Your task to perform on an android device: turn pop-ups on in chrome Image 0: 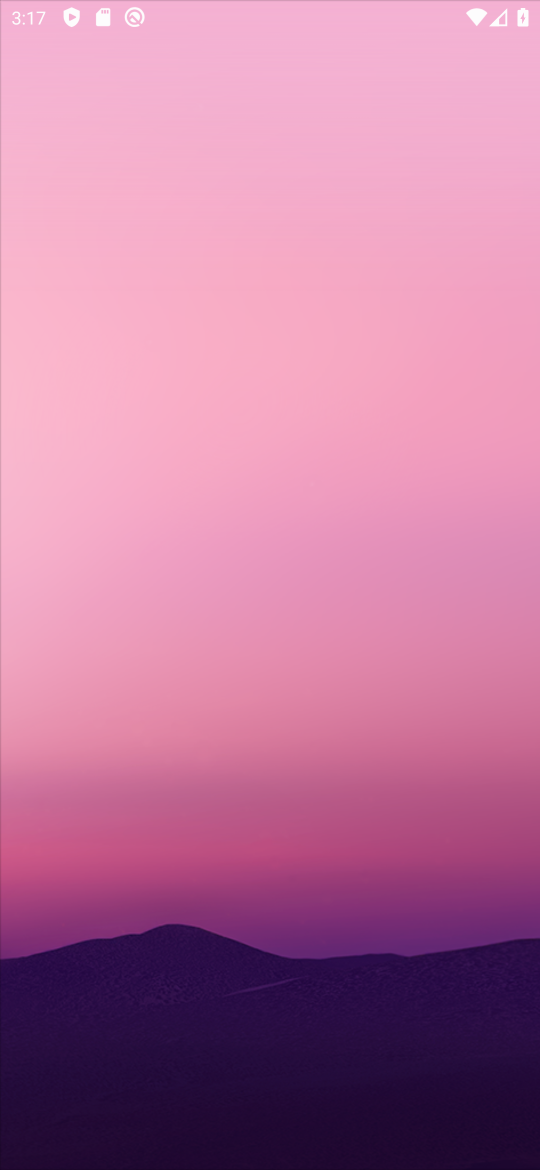
Step 0: click (379, 104)
Your task to perform on an android device: turn pop-ups on in chrome Image 1: 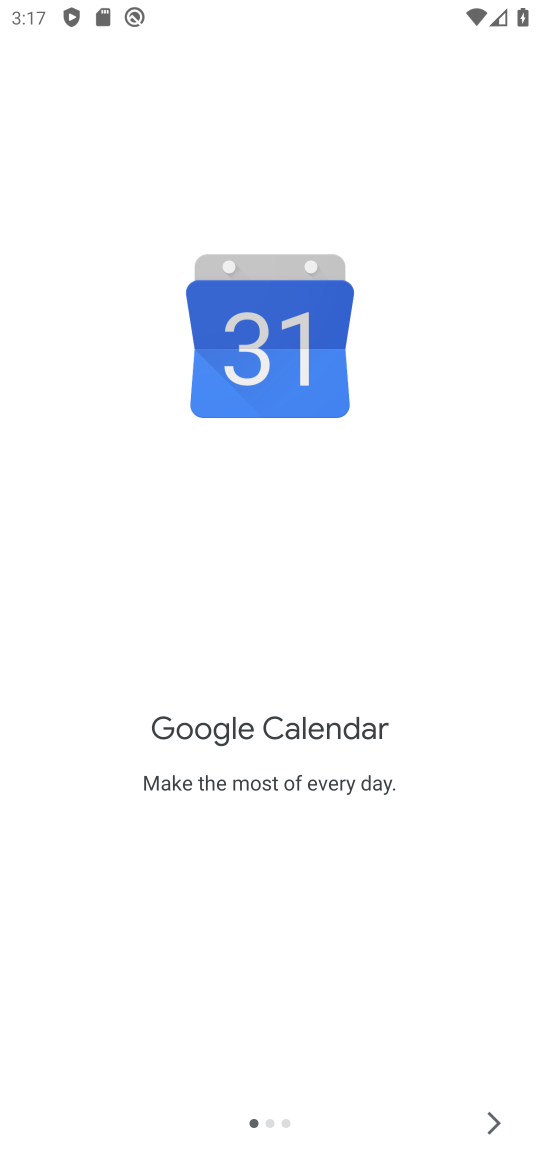
Step 1: press back button
Your task to perform on an android device: turn pop-ups on in chrome Image 2: 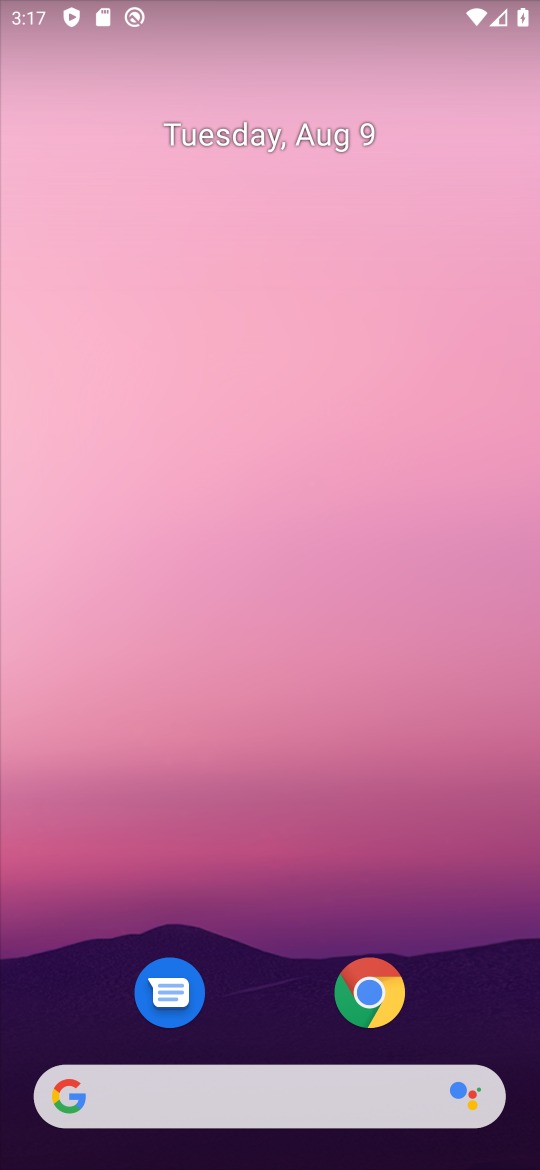
Step 2: click (365, 976)
Your task to perform on an android device: turn pop-ups on in chrome Image 3: 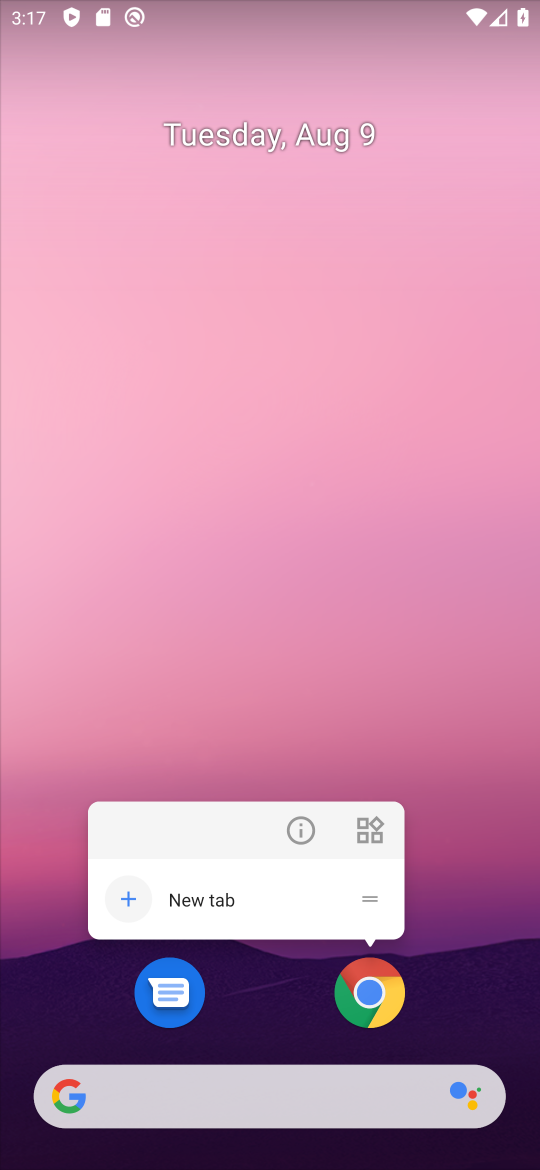
Step 3: click (376, 1000)
Your task to perform on an android device: turn pop-ups on in chrome Image 4: 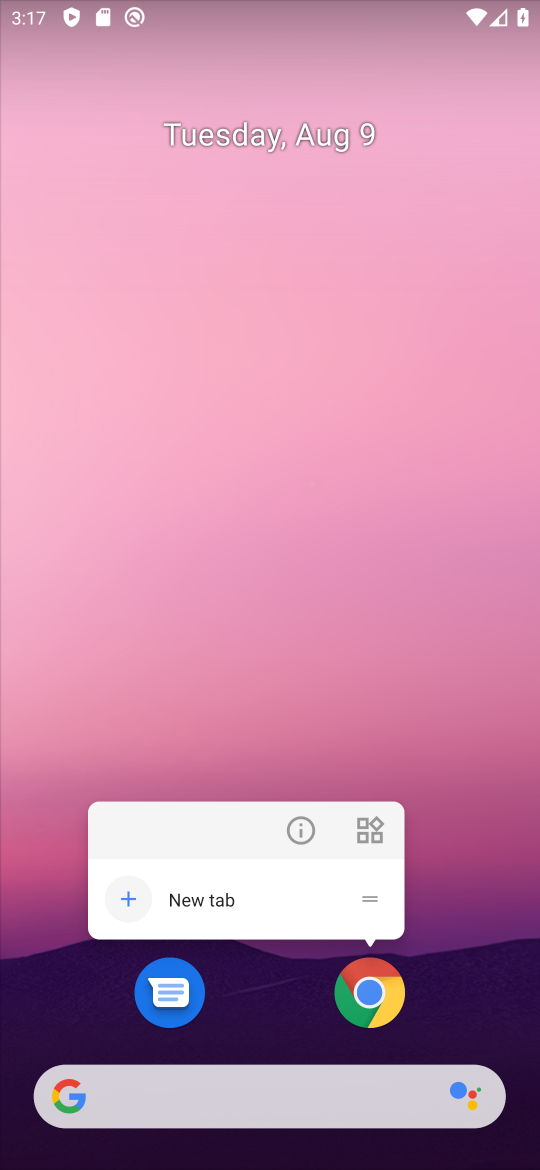
Step 4: click (377, 991)
Your task to perform on an android device: turn pop-ups on in chrome Image 5: 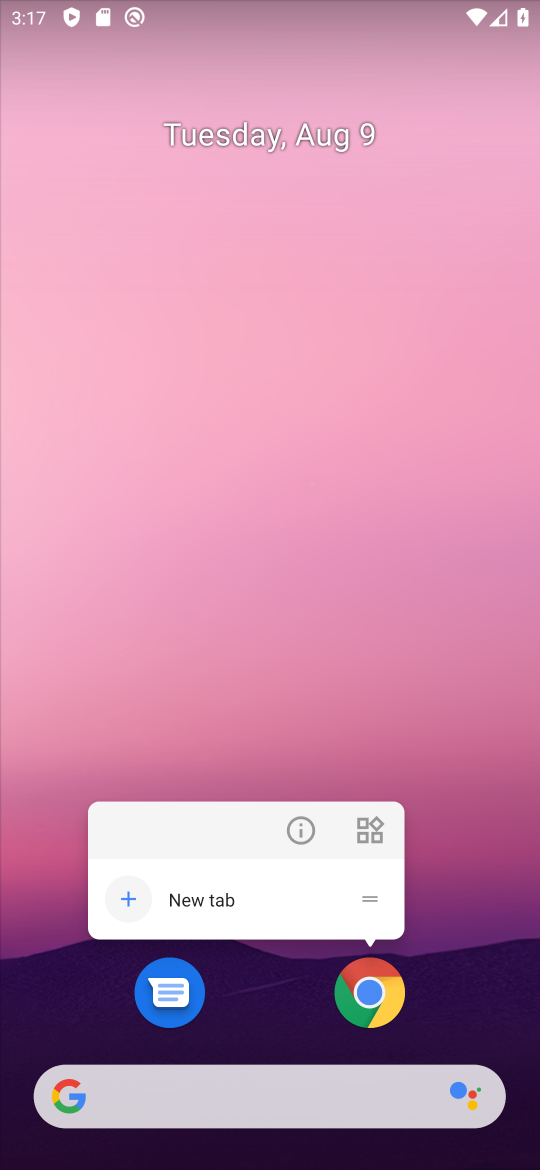
Step 5: click (352, 988)
Your task to perform on an android device: turn pop-ups on in chrome Image 6: 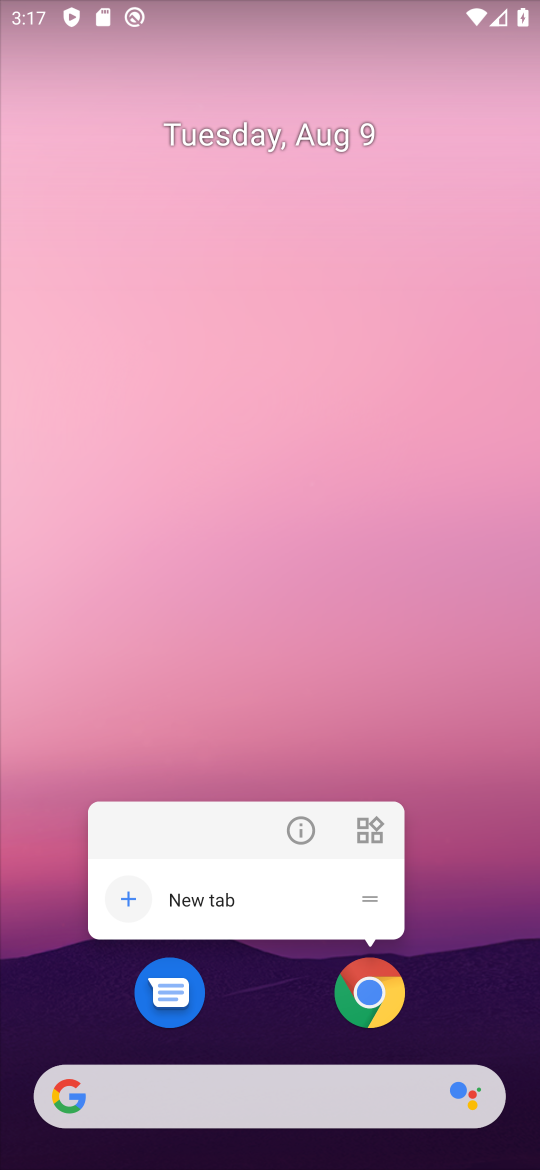
Step 6: click (365, 987)
Your task to perform on an android device: turn pop-ups on in chrome Image 7: 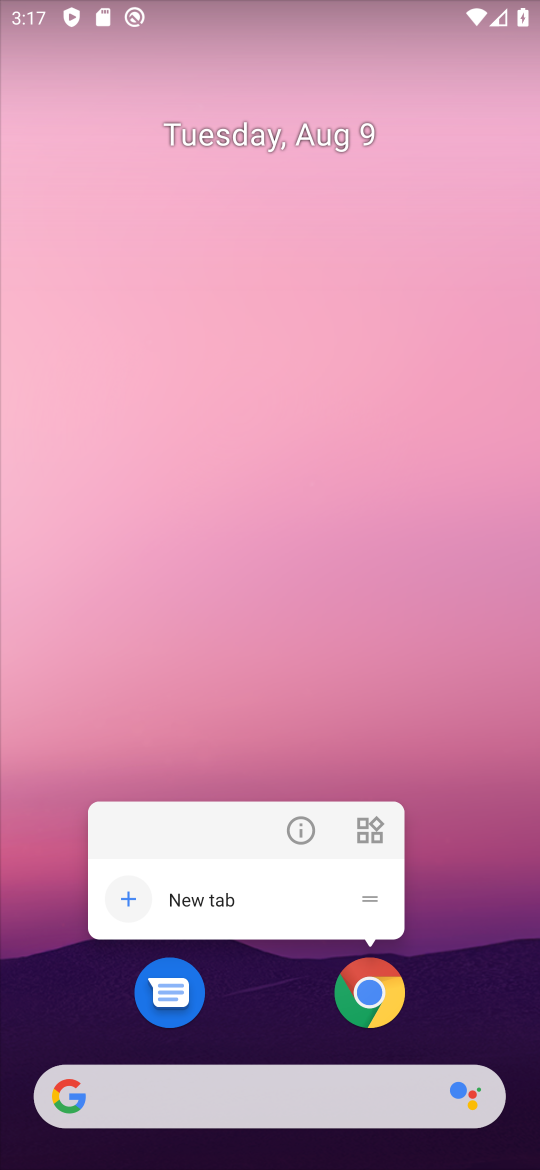
Step 7: click (375, 988)
Your task to perform on an android device: turn pop-ups on in chrome Image 8: 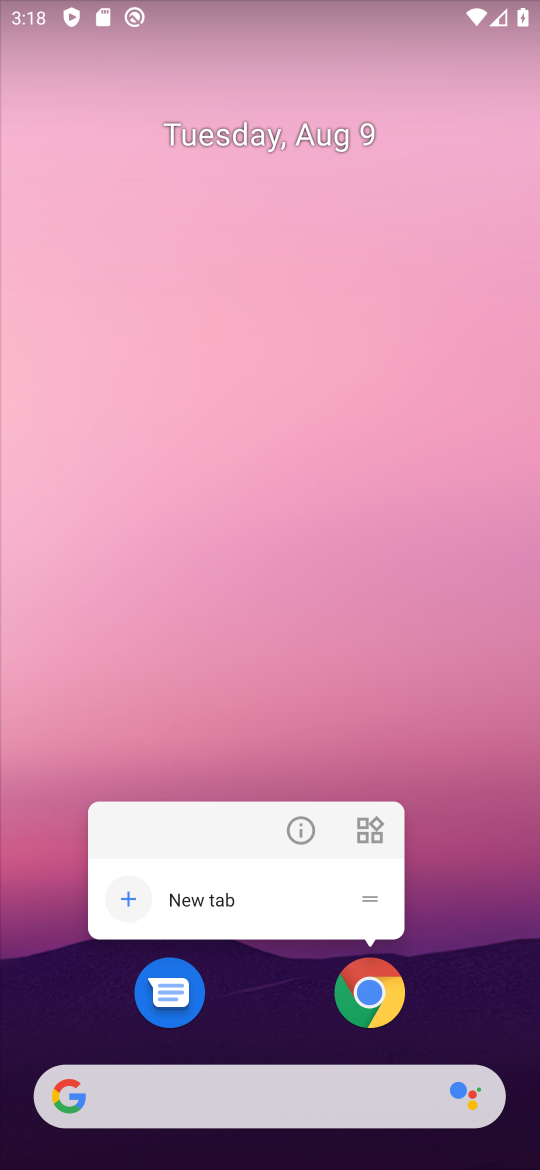
Step 8: click (376, 992)
Your task to perform on an android device: turn pop-ups on in chrome Image 9: 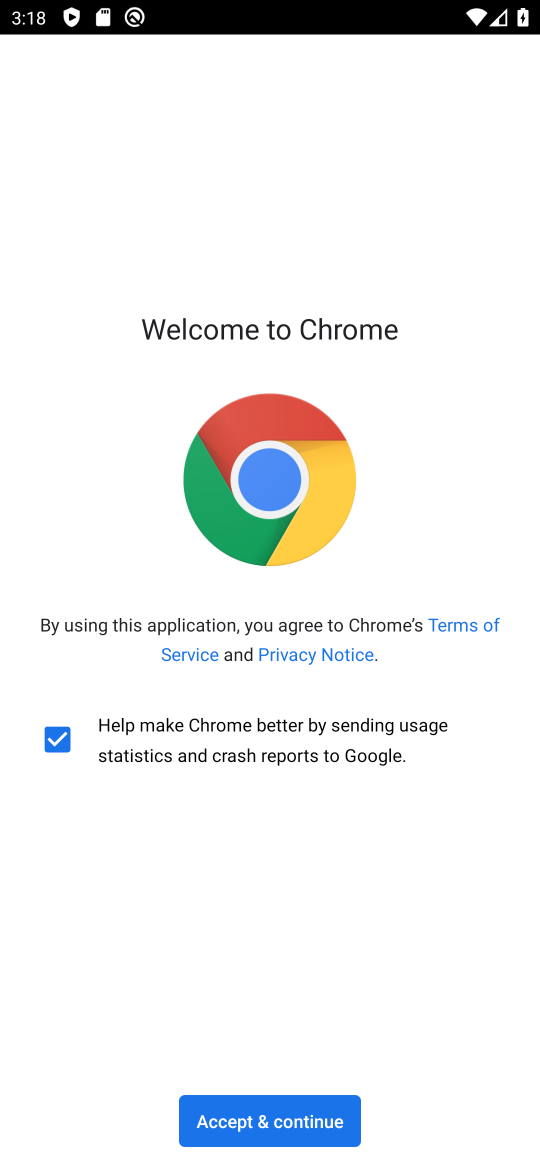
Step 9: click (225, 1143)
Your task to perform on an android device: turn pop-ups on in chrome Image 10: 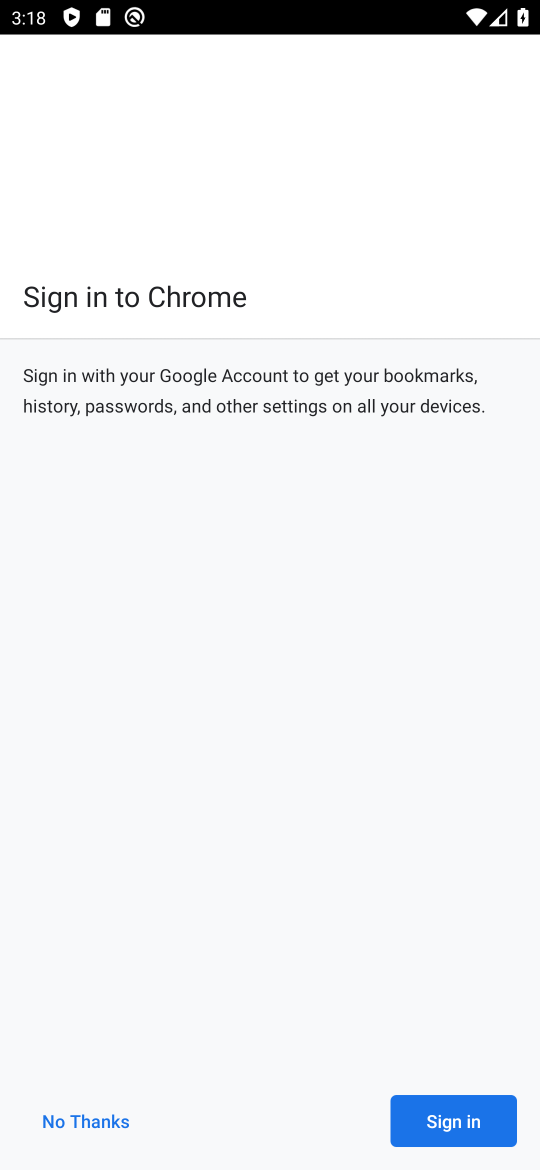
Step 10: click (428, 1111)
Your task to perform on an android device: turn pop-ups on in chrome Image 11: 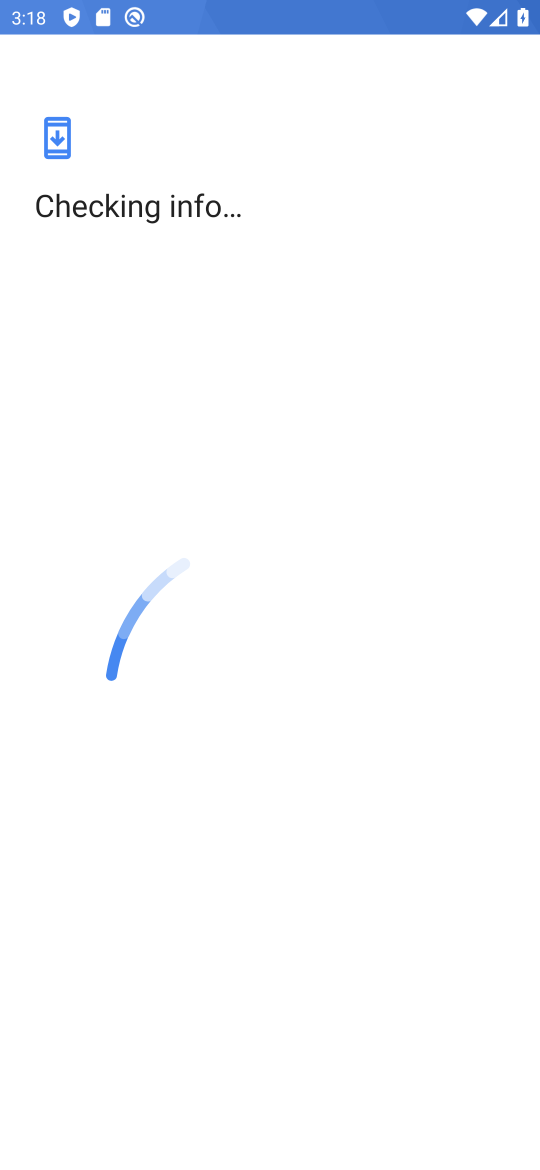
Step 11: press back button
Your task to perform on an android device: turn pop-ups on in chrome Image 12: 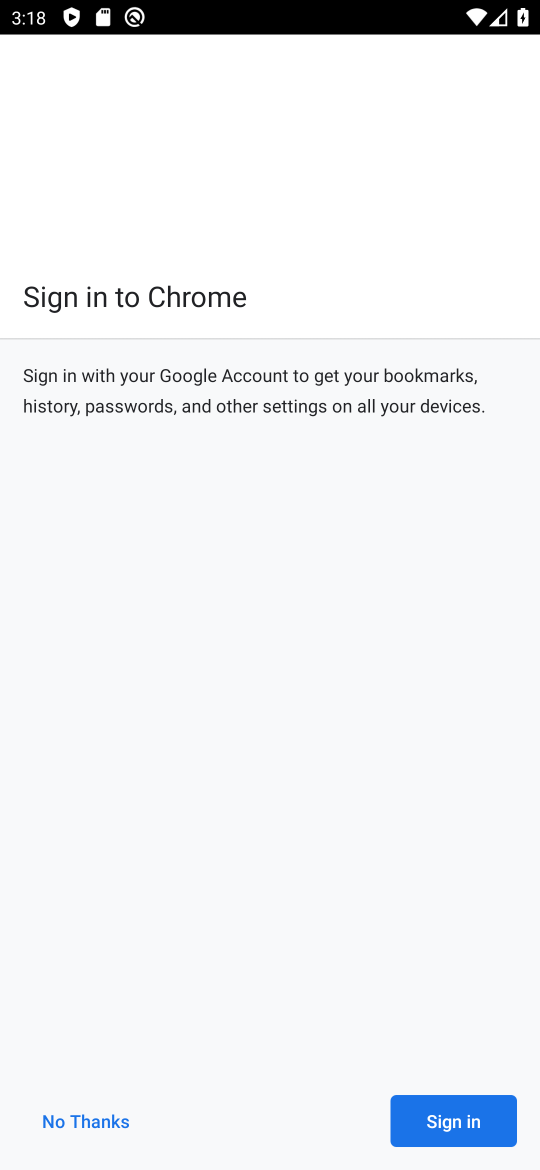
Step 12: press back button
Your task to perform on an android device: turn pop-ups on in chrome Image 13: 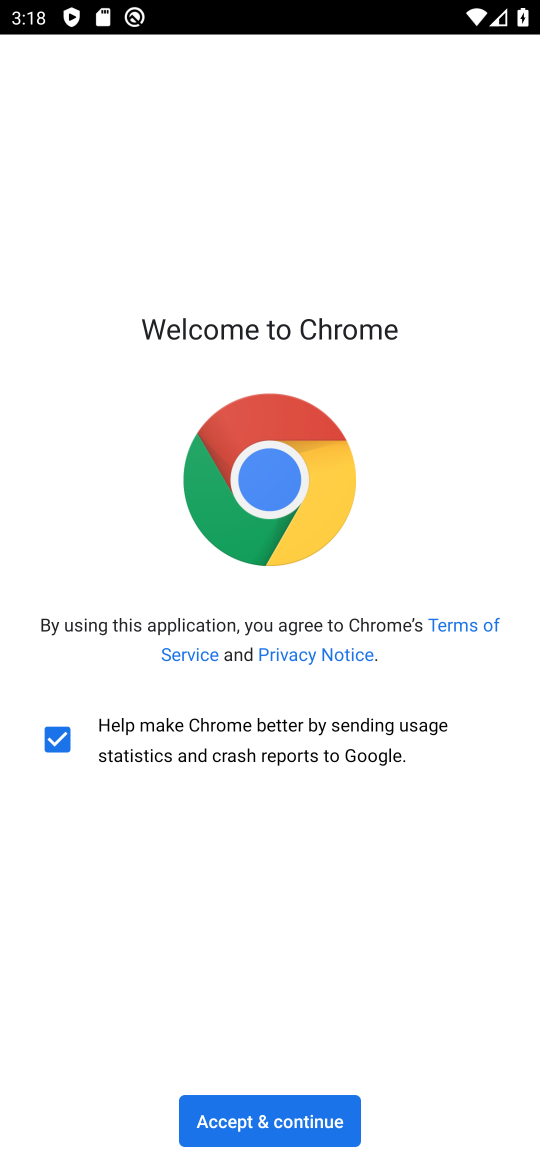
Step 13: click (251, 1116)
Your task to perform on an android device: turn pop-ups on in chrome Image 14: 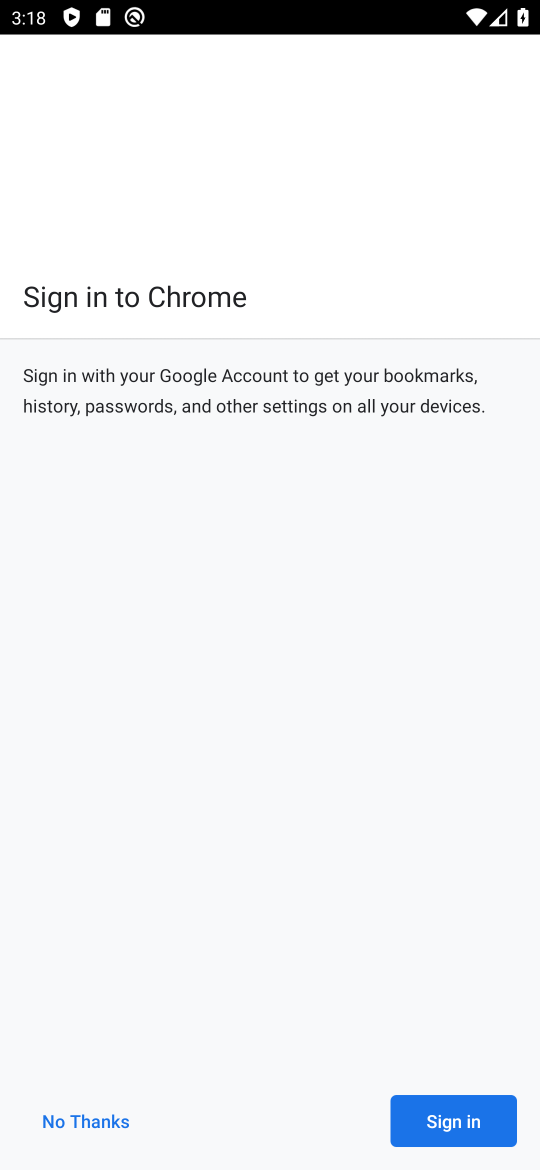
Step 14: click (84, 1137)
Your task to perform on an android device: turn pop-ups on in chrome Image 15: 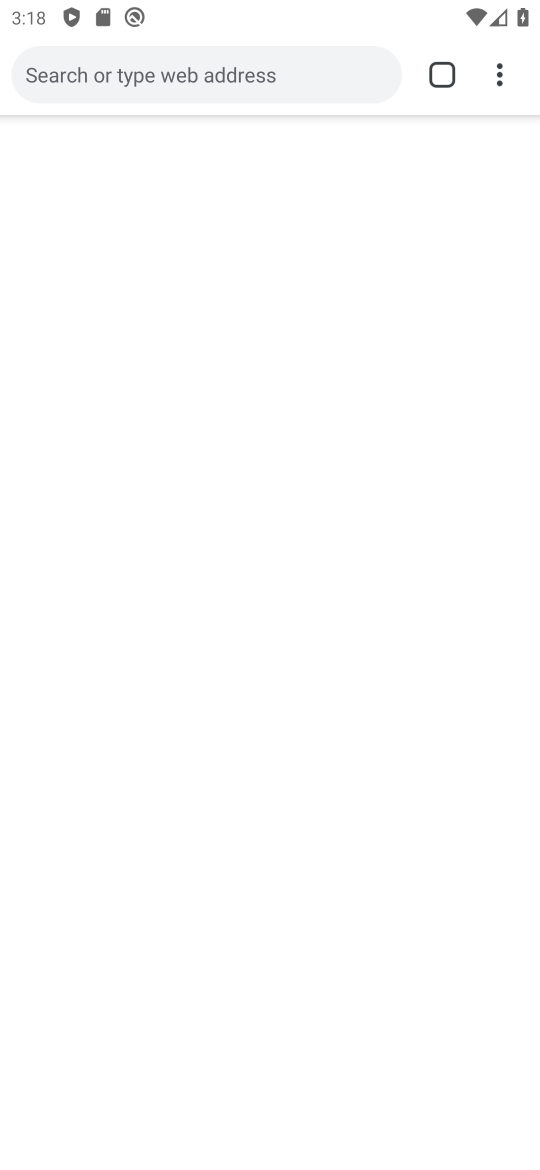
Step 15: drag from (497, 68) to (321, 455)
Your task to perform on an android device: turn pop-ups on in chrome Image 16: 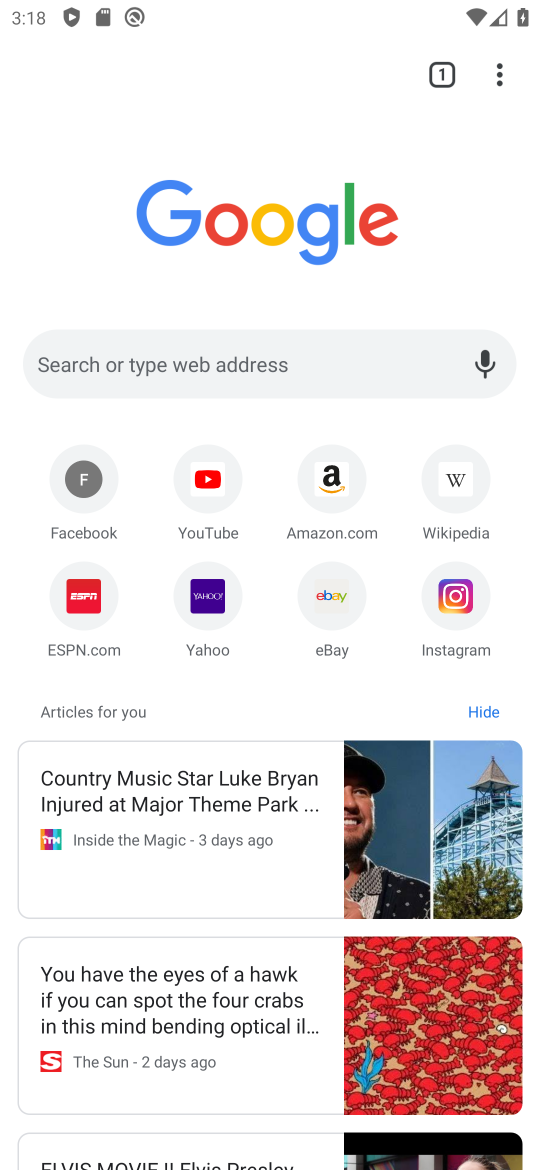
Step 16: drag from (497, 89) to (238, 627)
Your task to perform on an android device: turn pop-ups on in chrome Image 17: 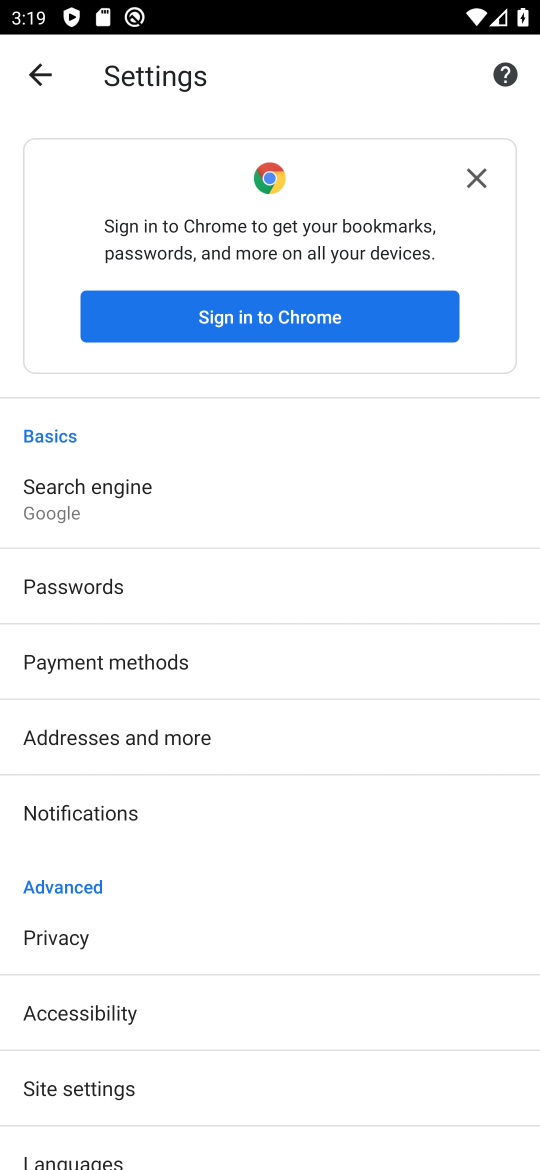
Step 17: click (108, 1088)
Your task to perform on an android device: turn pop-ups on in chrome Image 18: 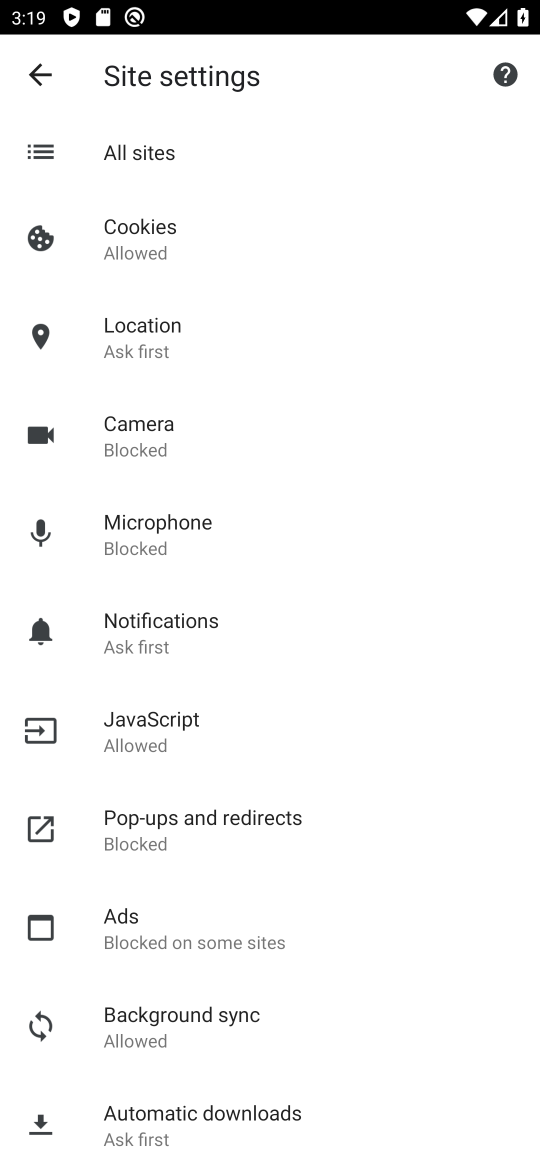
Step 18: click (215, 816)
Your task to perform on an android device: turn pop-ups on in chrome Image 19: 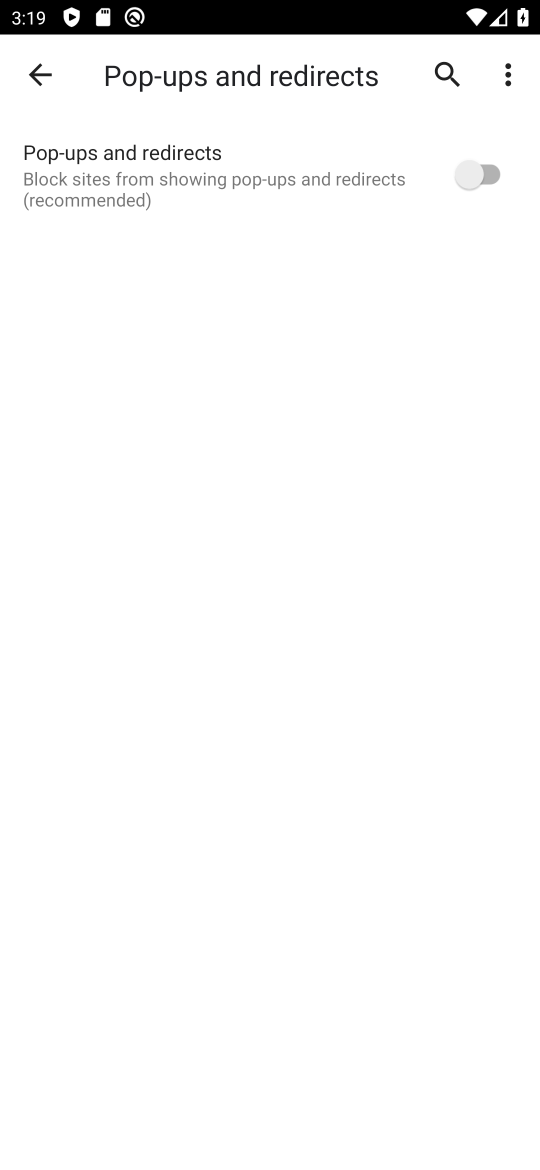
Step 19: click (474, 165)
Your task to perform on an android device: turn pop-ups on in chrome Image 20: 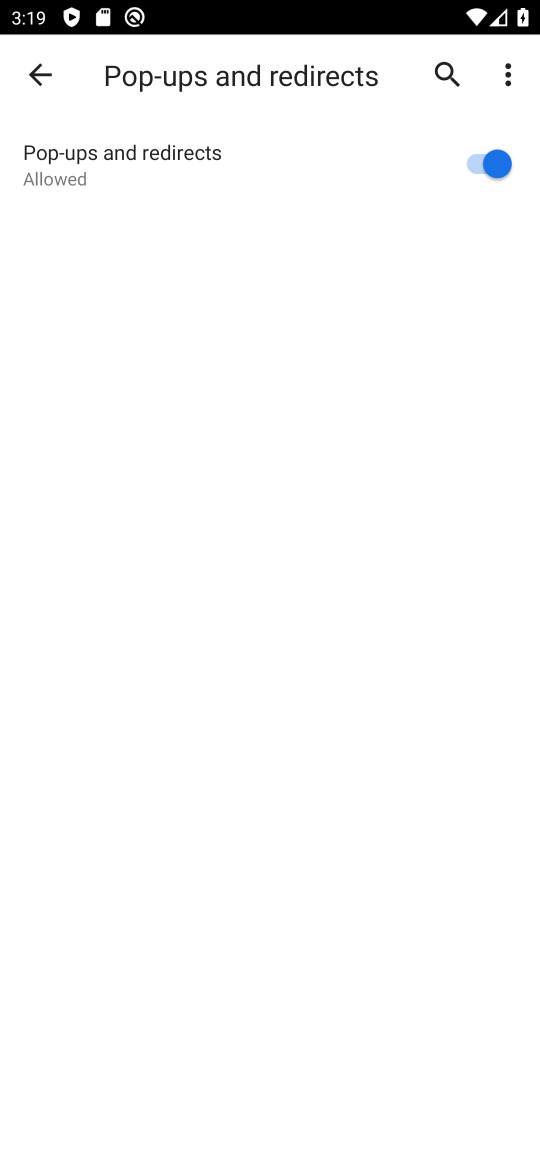
Step 20: task complete